Your task to perform on an android device: Search for pizza restaurants on Maps Image 0: 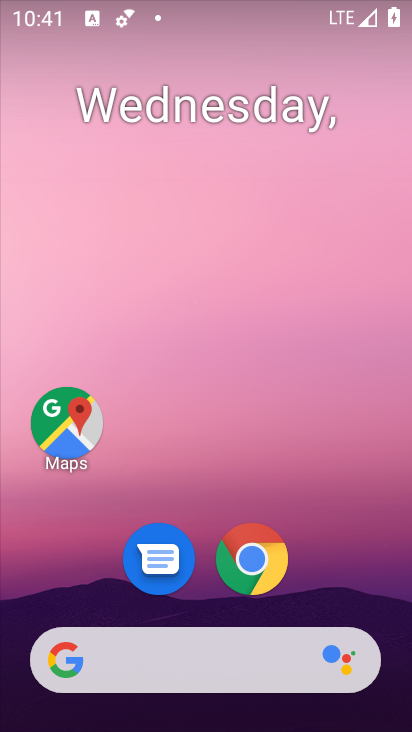
Step 0: drag from (189, 634) to (154, 169)
Your task to perform on an android device: Search for pizza restaurants on Maps Image 1: 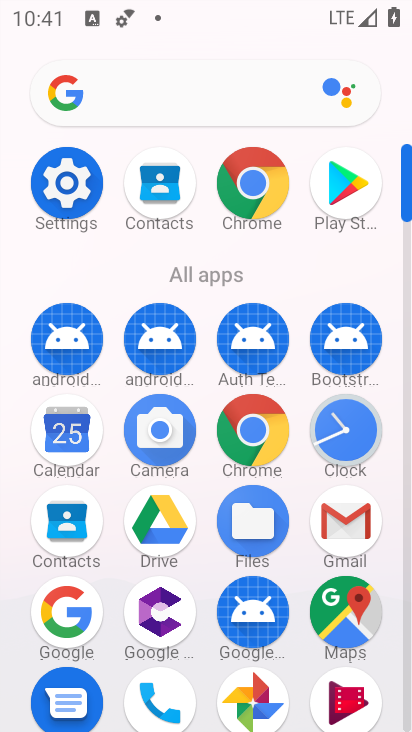
Step 1: click (365, 613)
Your task to perform on an android device: Search for pizza restaurants on Maps Image 2: 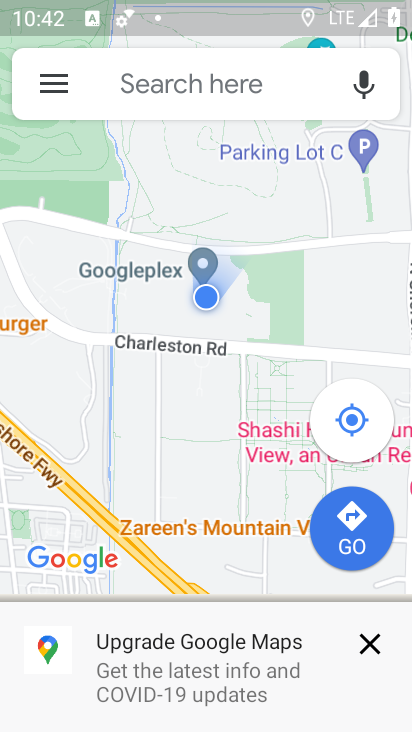
Step 2: click (208, 98)
Your task to perform on an android device: Search for pizza restaurants on Maps Image 3: 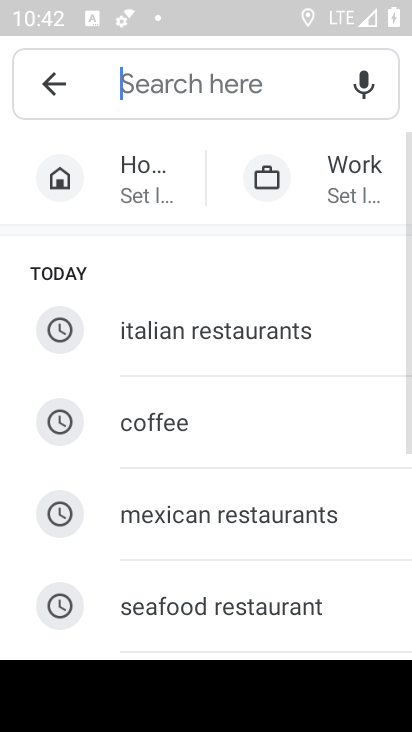
Step 3: drag from (196, 568) to (202, 251)
Your task to perform on an android device: Search for pizza restaurants on Maps Image 4: 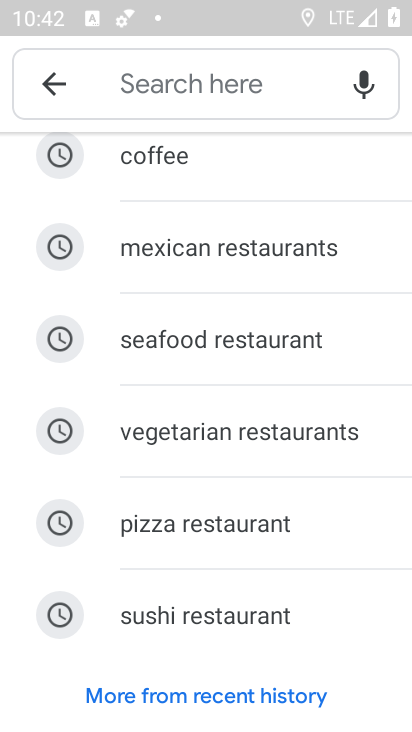
Step 4: click (213, 519)
Your task to perform on an android device: Search for pizza restaurants on Maps Image 5: 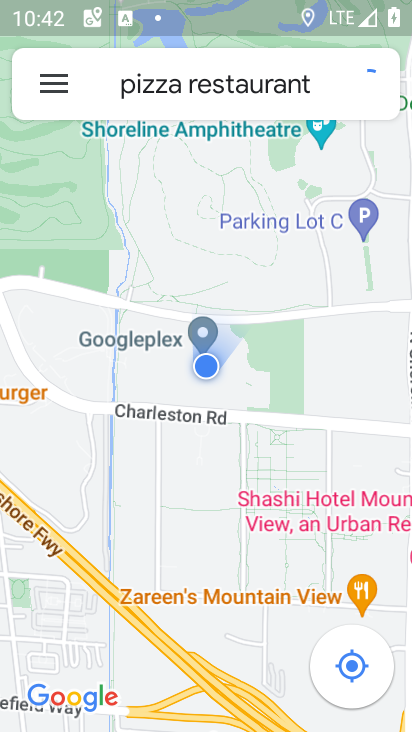
Step 5: task complete